Your task to perform on an android device: uninstall "Google News" Image 0: 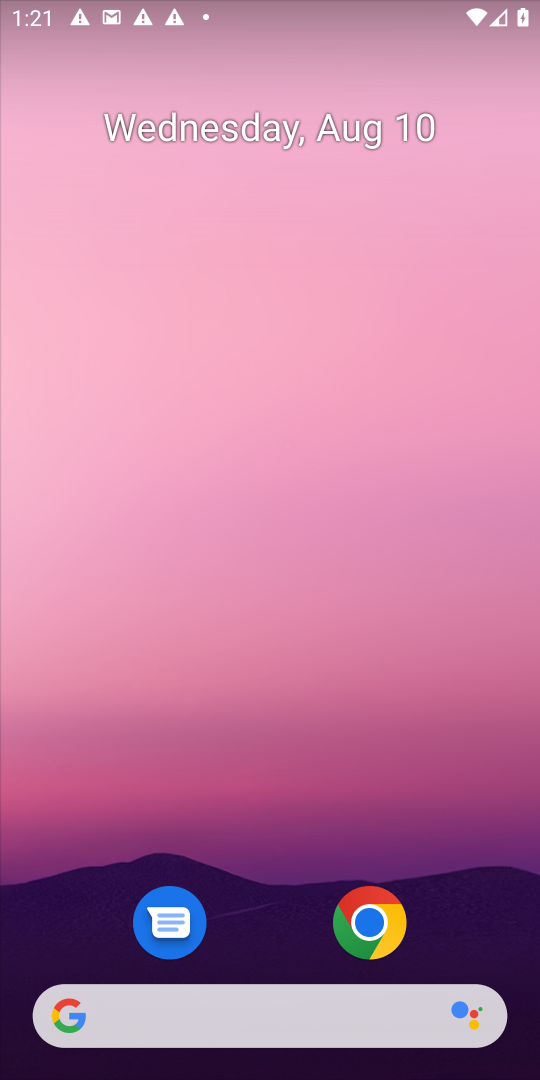
Step 0: drag from (235, 814) to (244, 29)
Your task to perform on an android device: uninstall "Google News" Image 1: 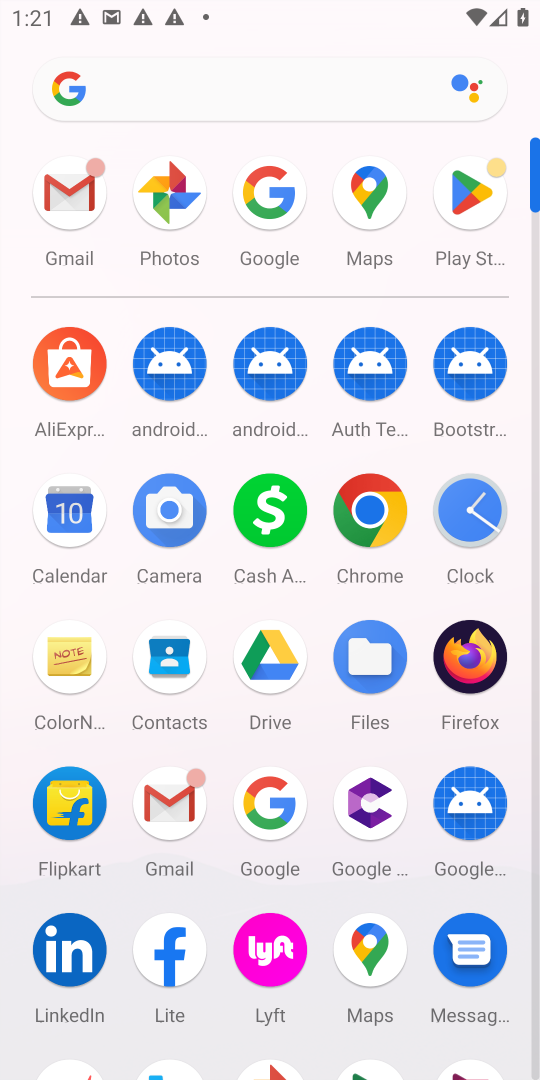
Step 1: click (465, 185)
Your task to perform on an android device: uninstall "Google News" Image 2: 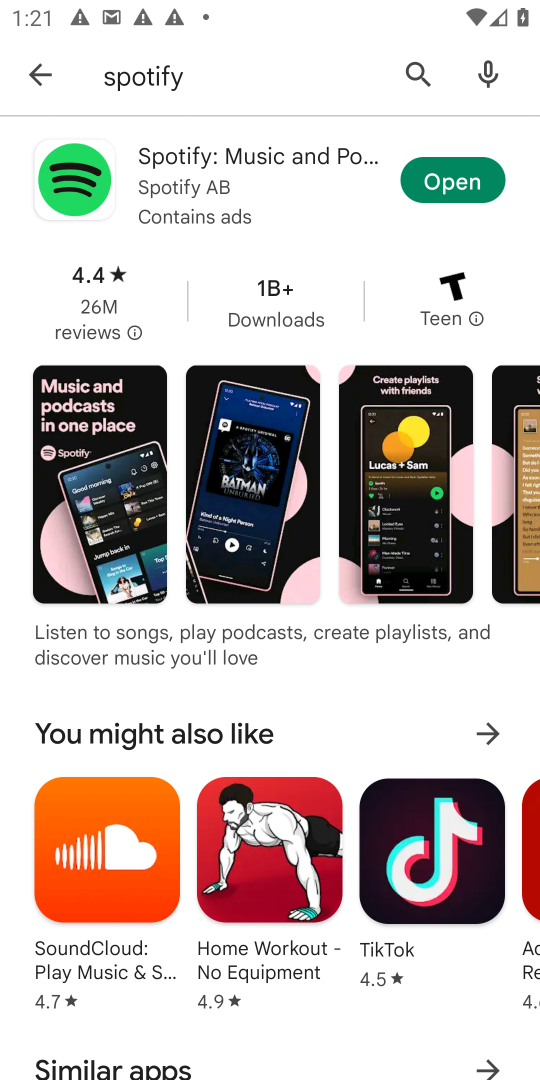
Step 2: click (30, 67)
Your task to perform on an android device: uninstall "Google News" Image 3: 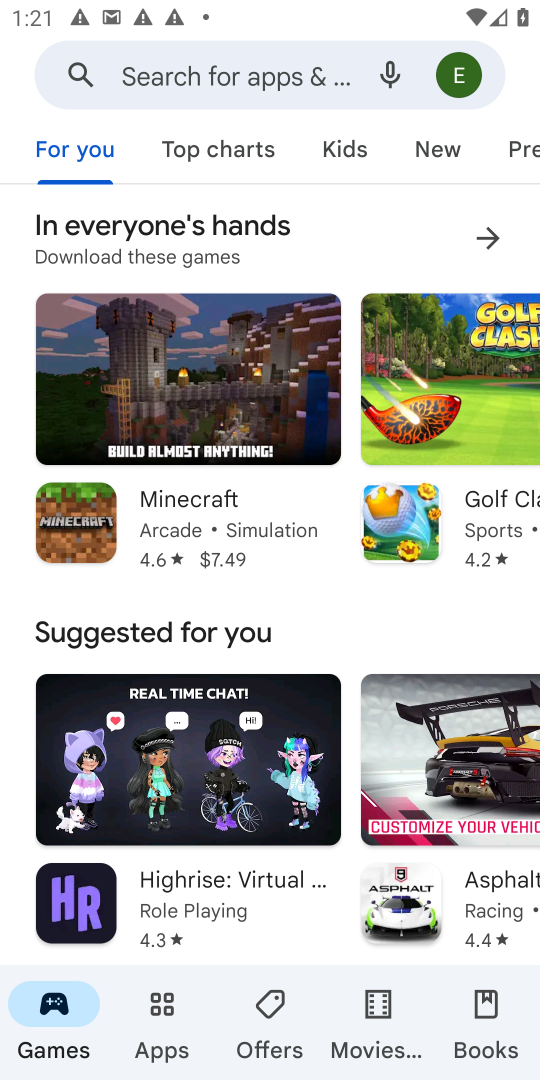
Step 3: click (257, 67)
Your task to perform on an android device: uninstall "Google News" Image 4: 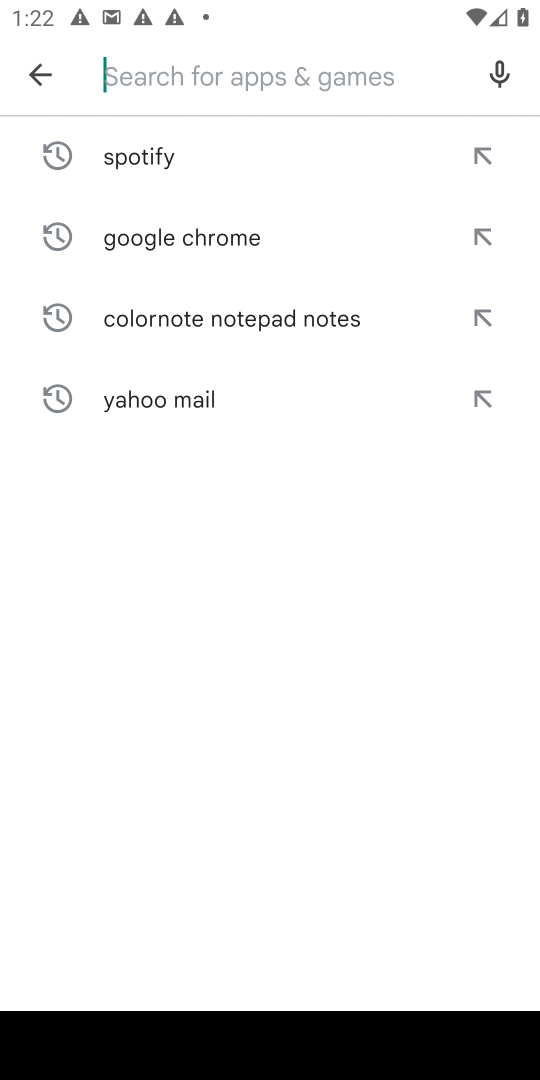
Step 4: type "Google News"
Your task to perform on an android device: uninstall "Google News" Image 5: 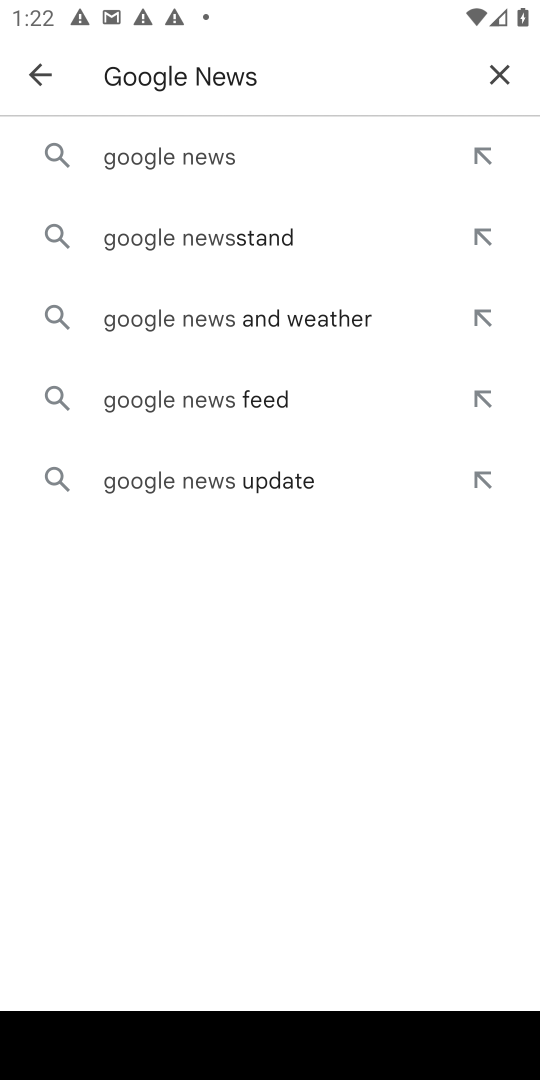
Step 5: click (169, 153)
Your task to perform on an android device: uninstall "Google News" Image 6: 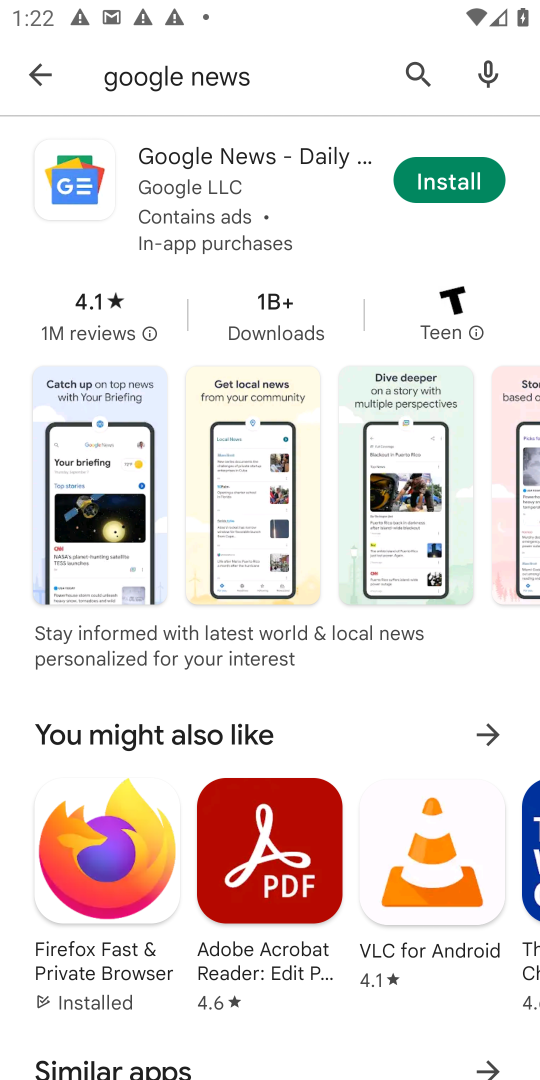
Step 6: task complete